Your task to perform on an android device: open app "Messages" (install if not already installed) and enter user name: "Hersey@inbox.com" and password: "facings" Image 0: 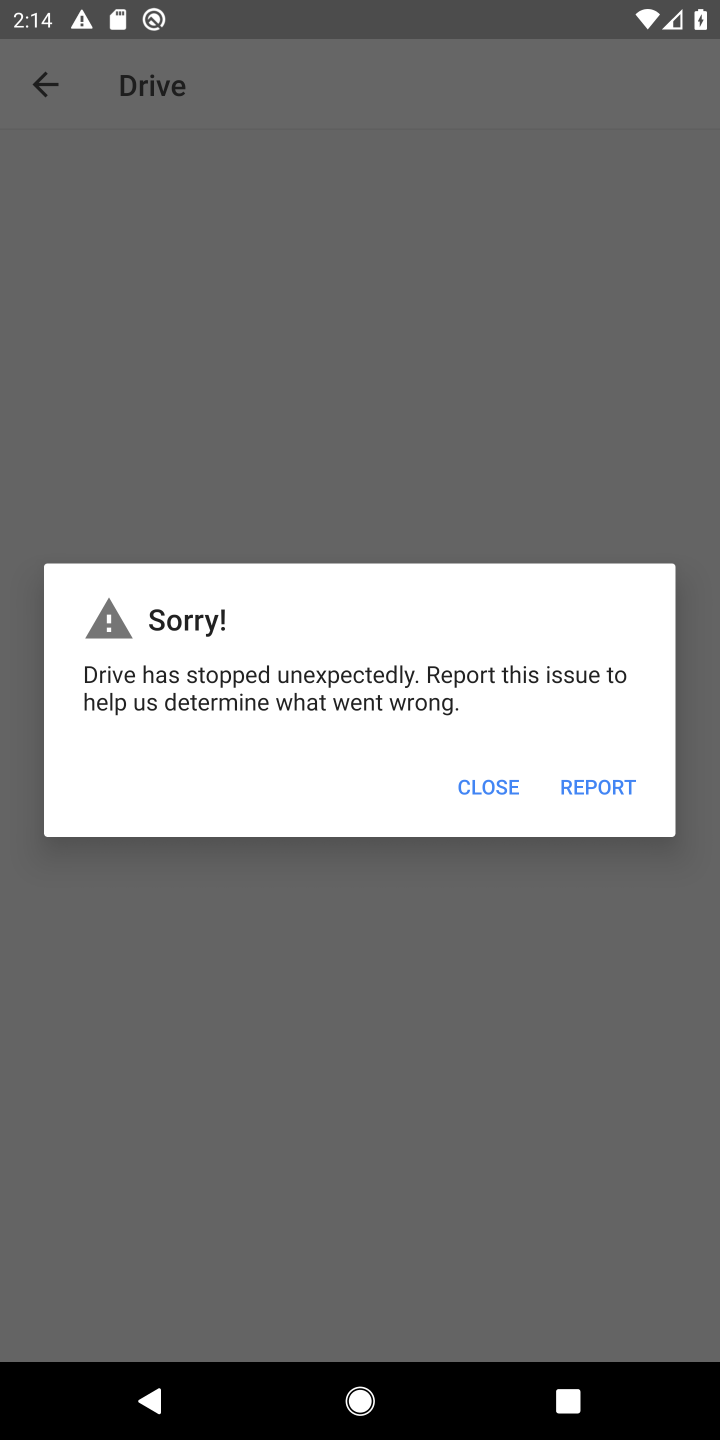
Step 0: press home button
Your task to perform on an android device: open app "Messages" (install if not already installed) and enter user name: "Hersey@inbox.com" and password: "facings" Image 1: 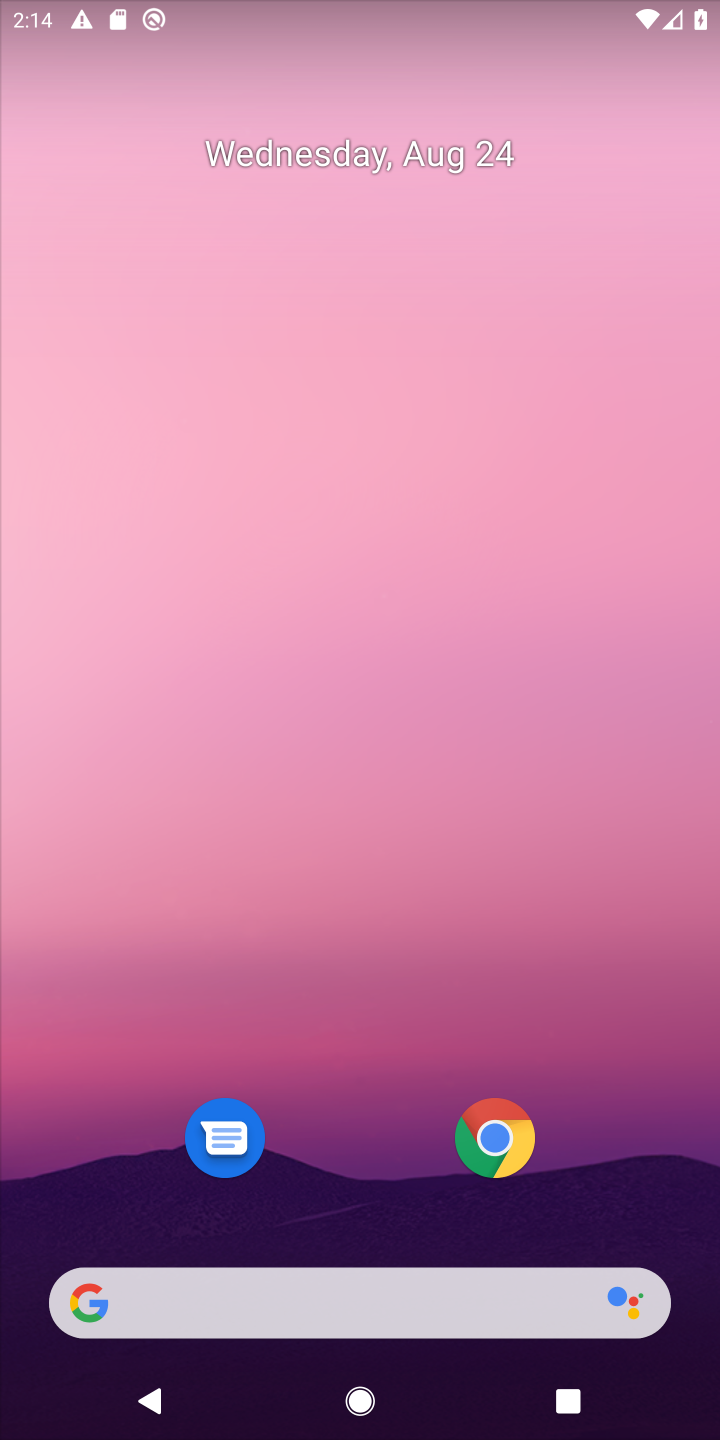
Step 1: drag from (354, 1243) to (337, 265)
Your task to perform on an android device: open app "Messages" (install if not already installed) and enter user name: "Hersey@inbox.com" and password: "facings" Image 2: 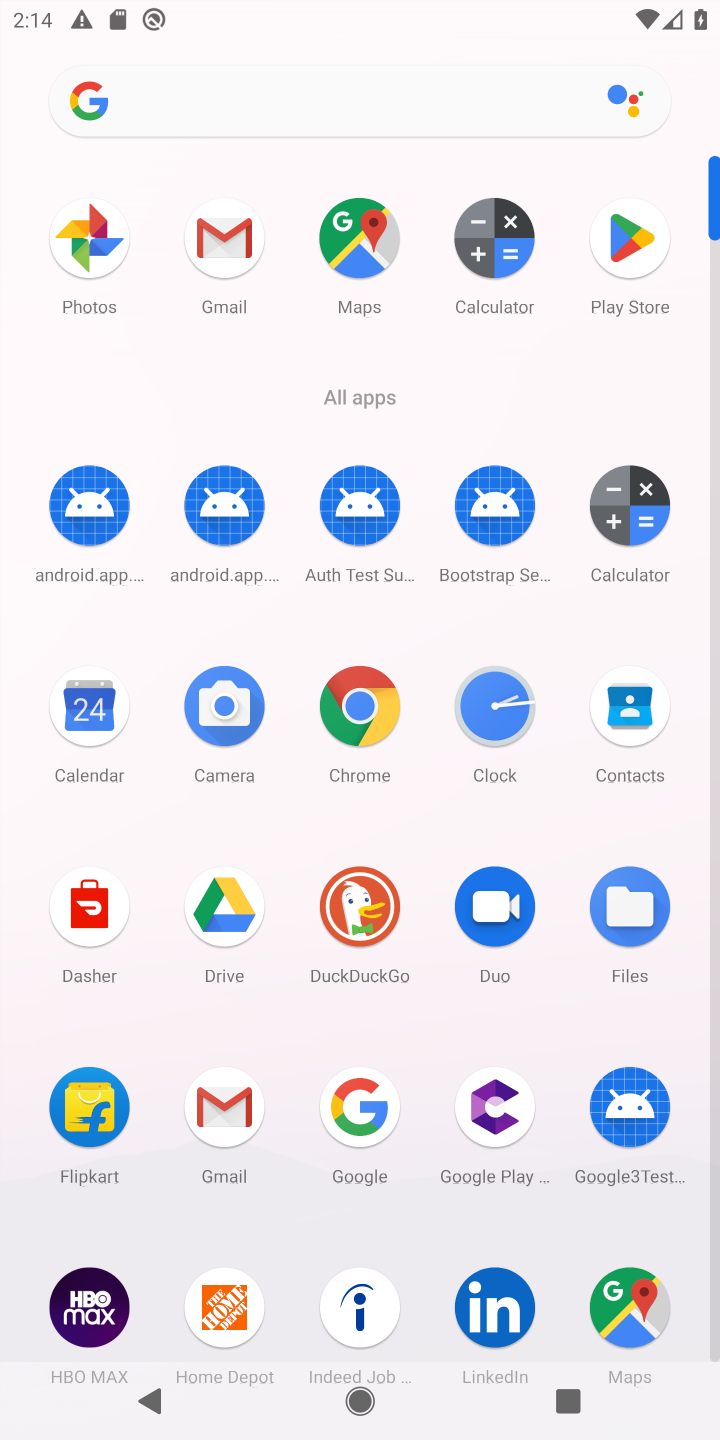
Step 2: drag from (381, 1293) to (393, 552)
Your task to perform on an android device: open app "Messages" (install if not already installed) and enter user name: "Hersey@inbox.com" and password: "facings" Image 3: 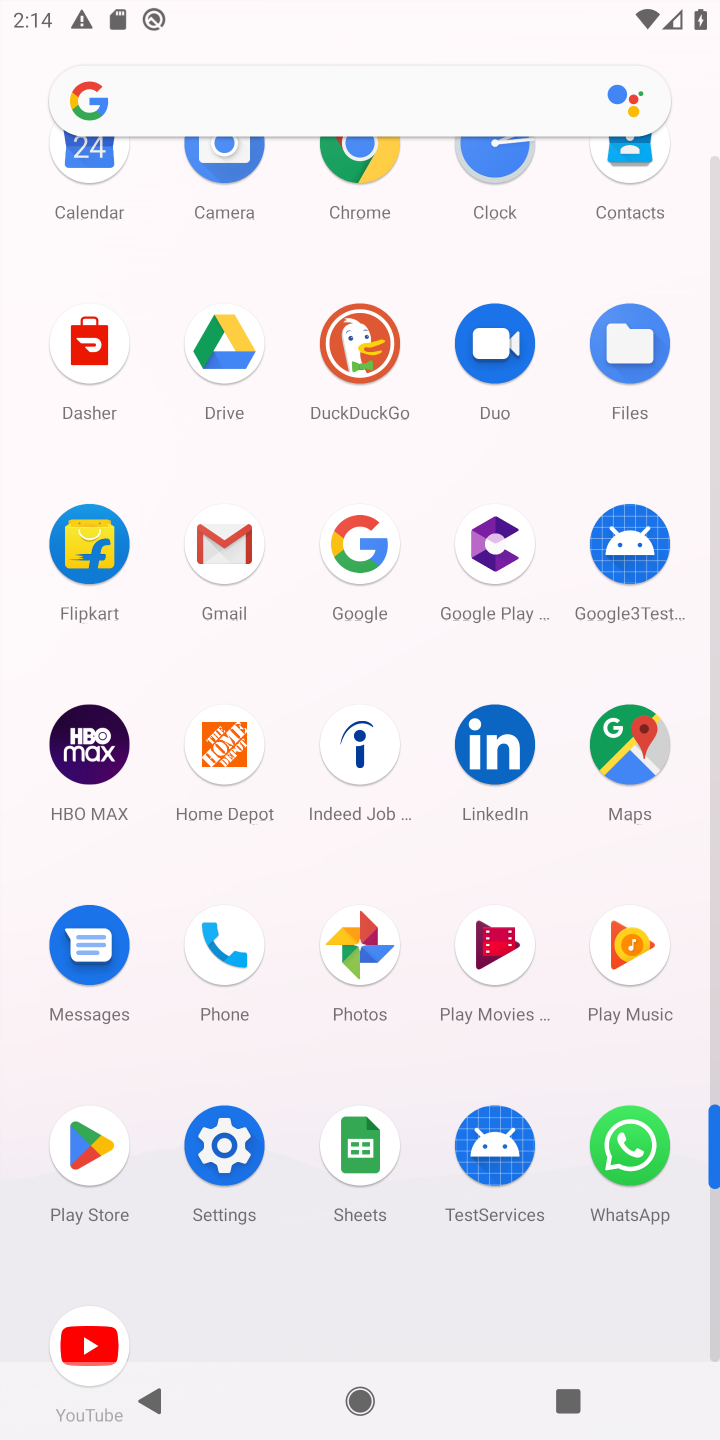
Step 3: click (79, 952)
Your task to perform on an android device: open app "Messages" (install if not already installed) and enter user name: "Hersey@inbox.com" and password: "facings" Image 4: 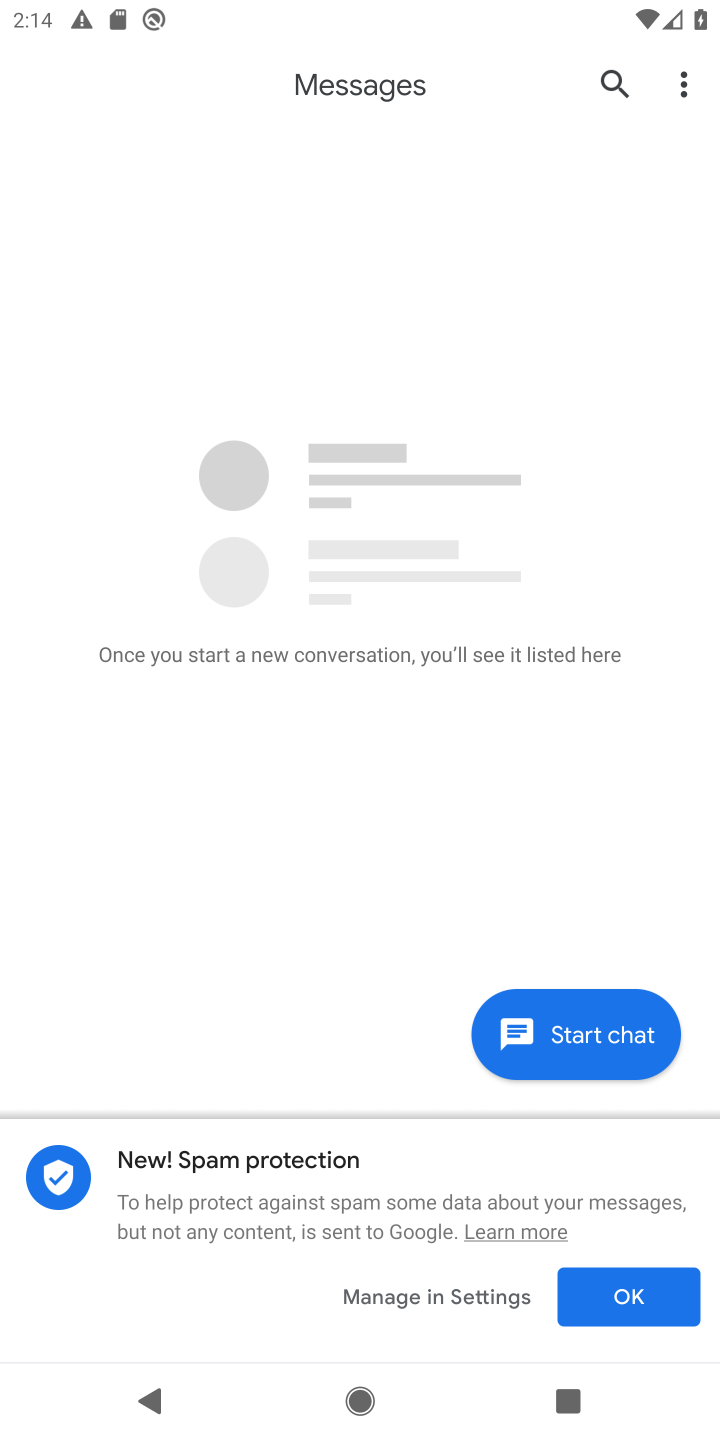
Step 4: task complete